Your task to perform on an android device: Open Maps and search for coffee Image 0: 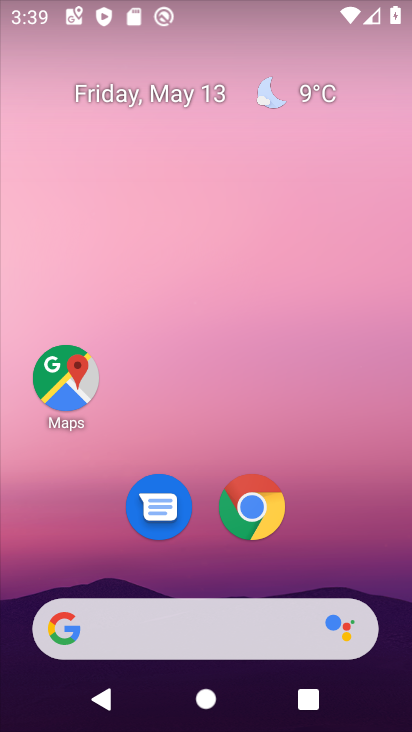
Step 0: drag from (349, 534) to (346, 109)
Your task to perform on an android device: Open Maps and search for coffee Image 1: 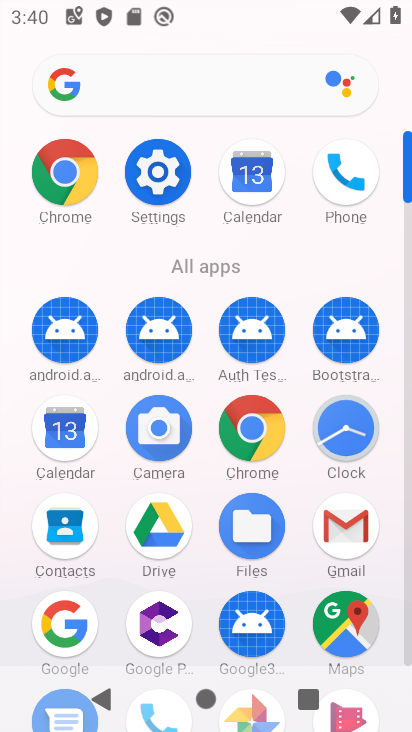
Step 1: click (357, 628)
Your task to perform on an android device: Open Maps and search for coffee Image 2: 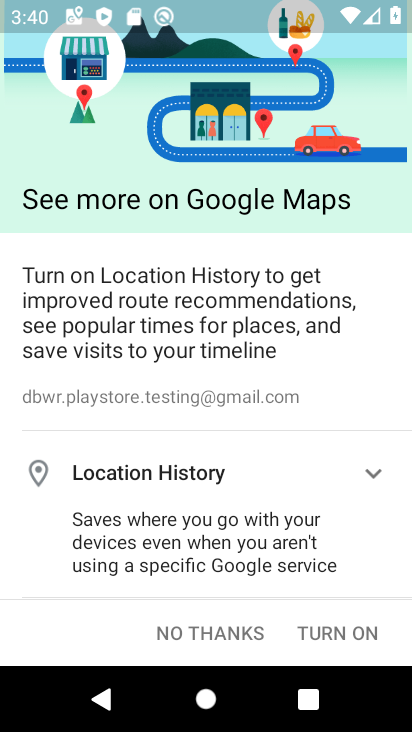
Step 2: click (223, 633)
Your task to perform on an android device: Open Maps and search for coffee Image 3: 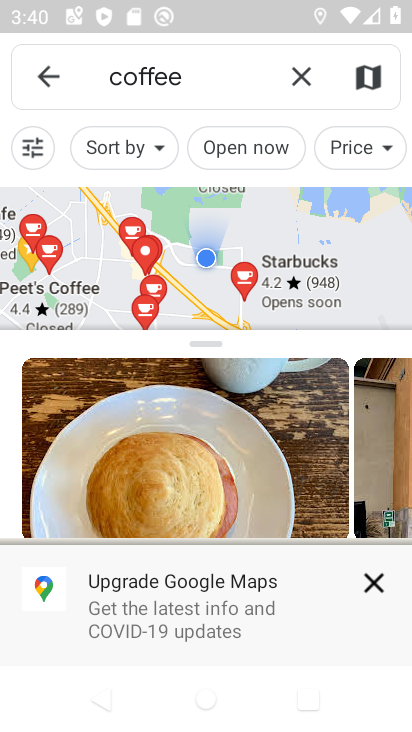
Step 3: task complete